Your task to perform on an android device: Open calendar and show me the first week of next month Image 0: 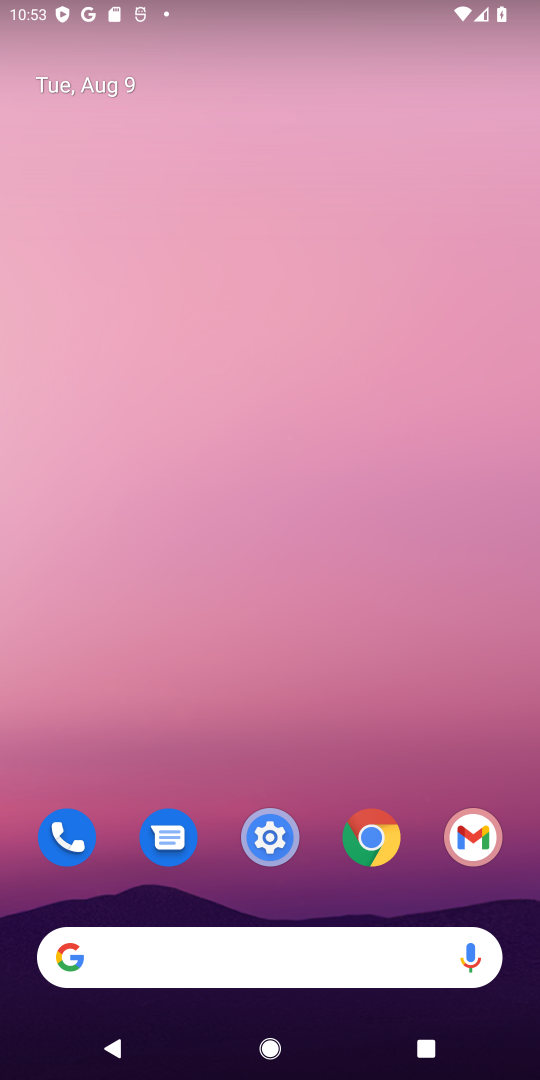
Step 0: drag from (337, 823) to (337, 326)
Your task to perform on an android device: Open calendar and show me the first week of next month Image 1: 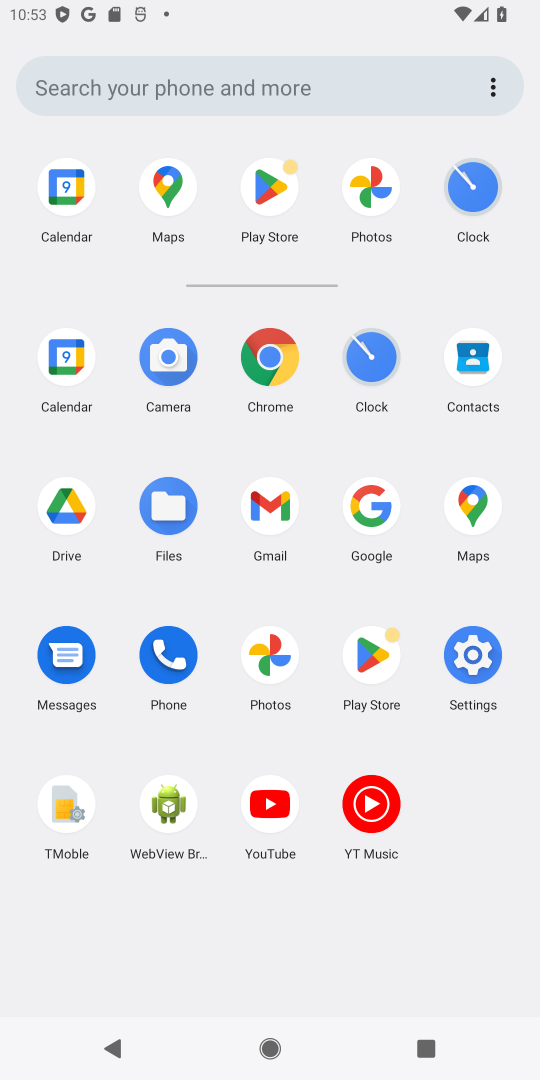
Step 1: click (64, 350)
Your task to perform on an android device: Open calendar and show me the first week of next month Image 2: 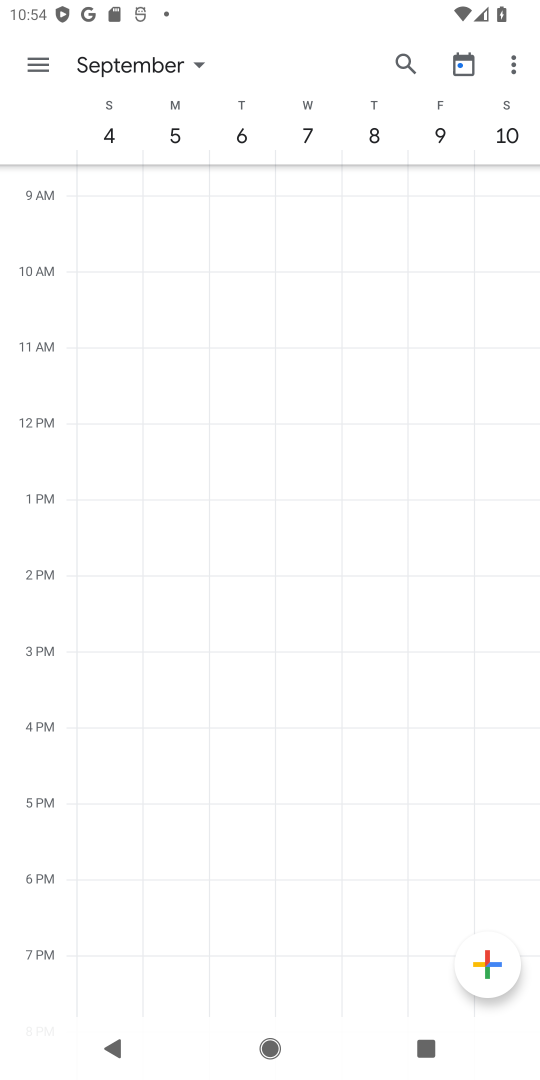
Step 2: task complete